Your task to perform on an android device: turn pop-ups on in chrome Image 0: 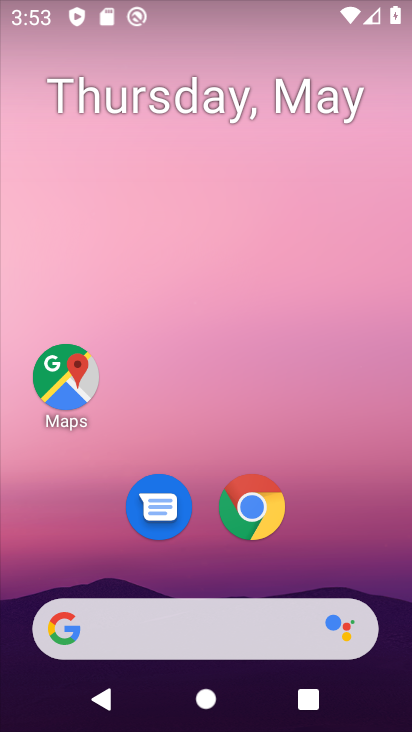
Step 0: click (256, 505)
Your task to perform on an android device: turn pop-ups on in chrome Image 1: 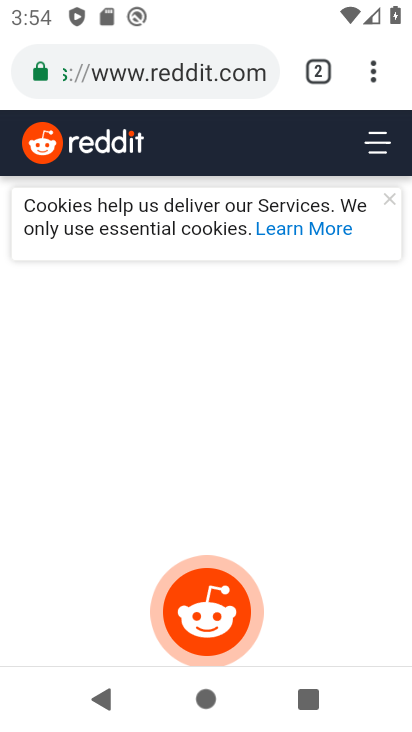
Step 1: click (363, 73)
Your task to perform on an android device: turn pop-ups on in chrome Image 2: 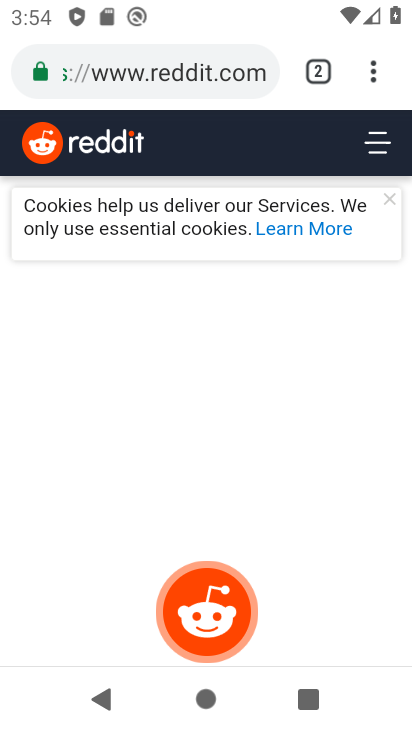
Step 2: click (366, 67)
Your task to perform on an android device: turn pop-ups on in chrome Image 3: 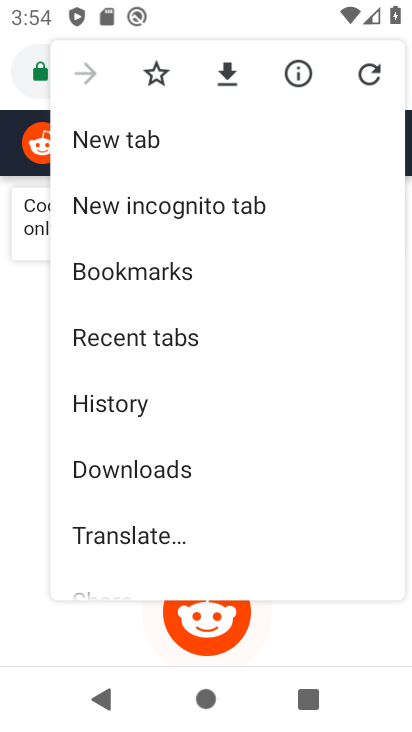
Step 3: drag from (265, 537) to (237, 285)
Your task to perform on an android device: turn pop-ups on in chrome Image 4: 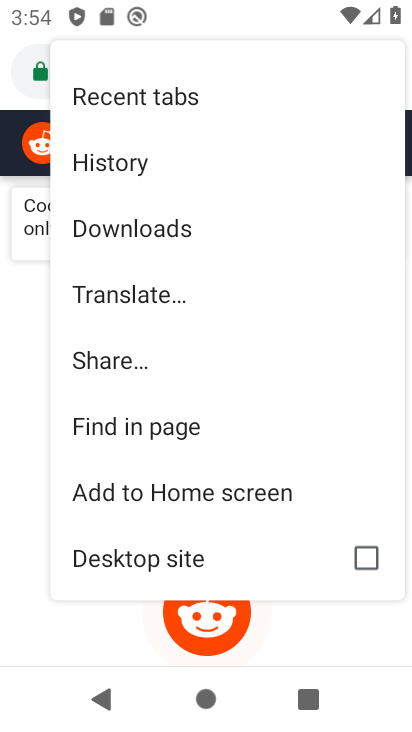
Step 4: drag from (184, 550) to (207, 195)
Your task to perform on an android device: turn pop-ups on in chrome Image 5: 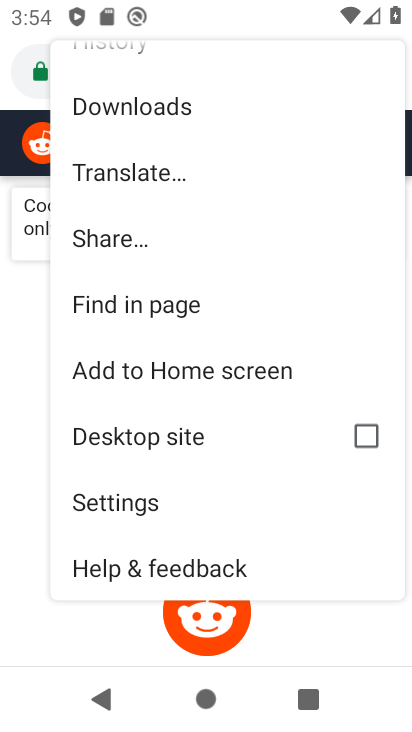
Step 5: click (176, 500)
Your task to perform on an android device: turn pop-ups on in chrome Image 6: 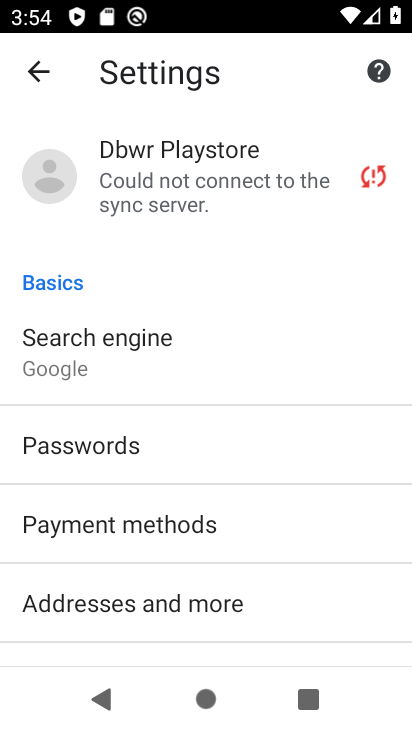
Step 6: drag from (181, 590) to (180, 274)
Your task to perform on an android device: turn pop-ups on in chrome Image 7: 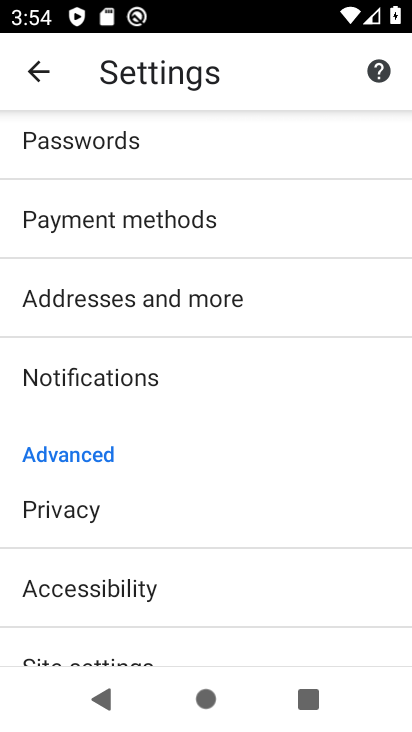
Step 7: drag from (183, 376) to (202, 227)
Your task to perform on an android device: turn pop-ups on in chrome Image 8: 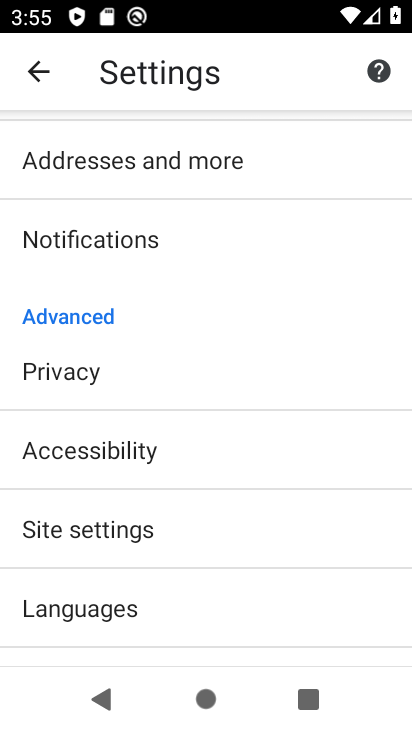
Step 8: click (156, 509)
Your task to perform on an android device: turn pop-ups on in chrome Image 9: 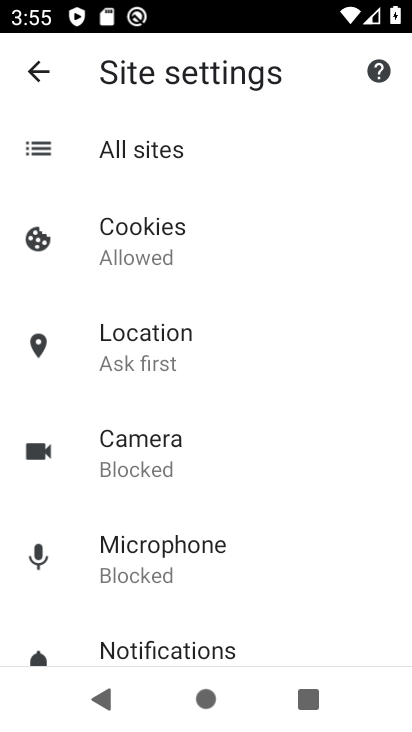
Step 9: drag from (147, 579) to (166, 222)
Your task to perform on an android device: turn pop-ups on in chrome Image 10: 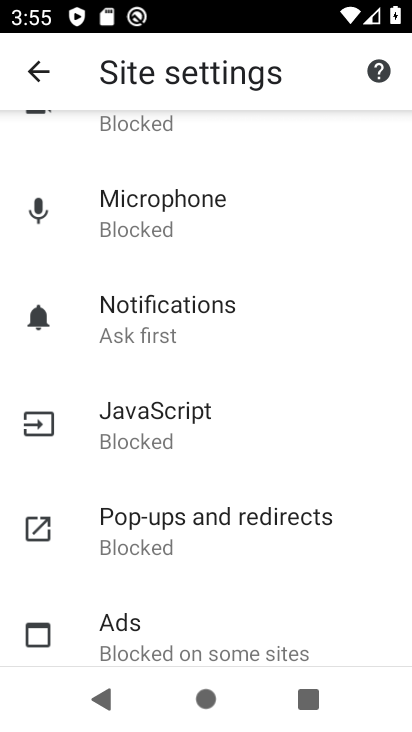
Step 10: click (198, 528)
Your task to perform on an android device: turn pop-ups on in chrome Image 11: 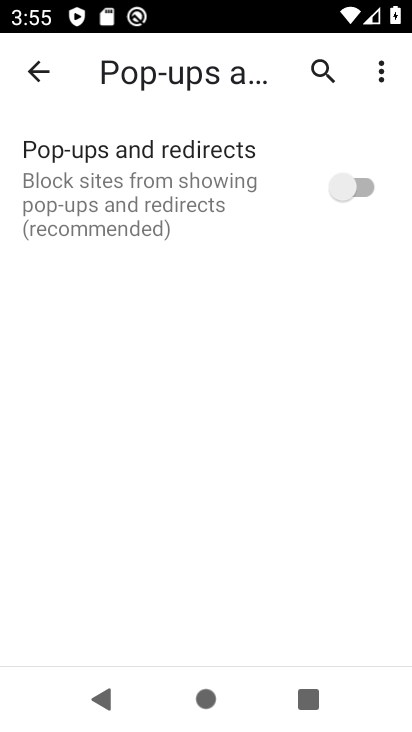
Step 11: click (369, 175)
Your task to perform on an android device: turn pop-ups on in chrome Image 12: 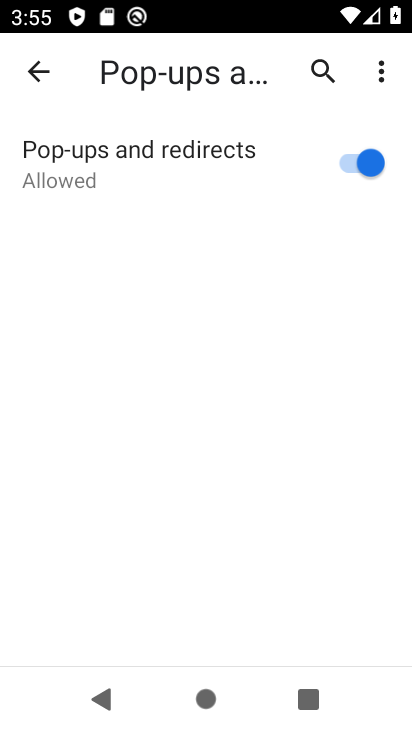
Step 12: task complete